Your task to perform on an android device: Show me the alarms in the clock app Image 0: 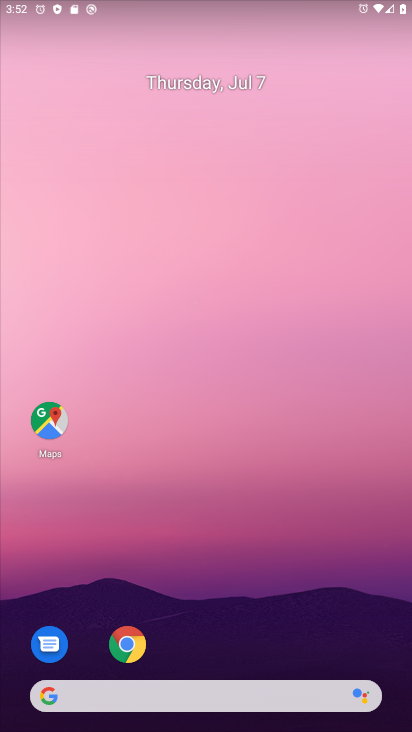
Step 0: press home button
Your task to perform on an android device: Show me the alarms in the clock app Image 1: 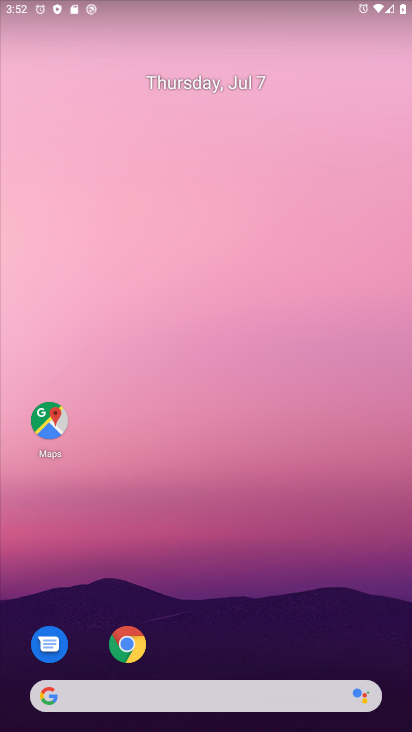
Step 1: drag from (166, 689) to (202, 76)
Your task to perform on an android device: Show me the alarms in the clock app Image 2: 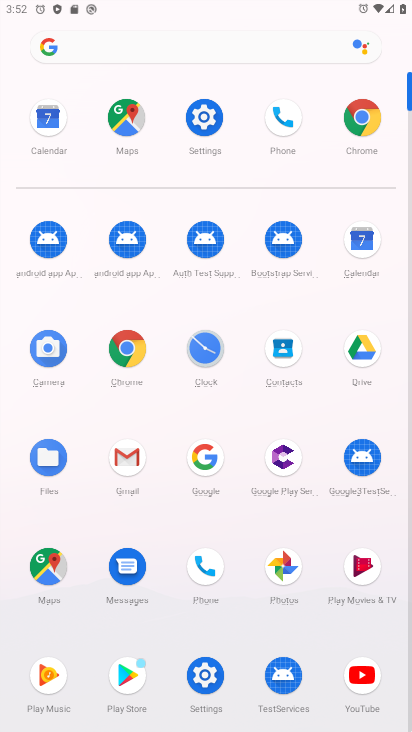
Step 2: click (206, 363)
Your task to perform on an android device: Show me the alarms in the clock app Image 3: 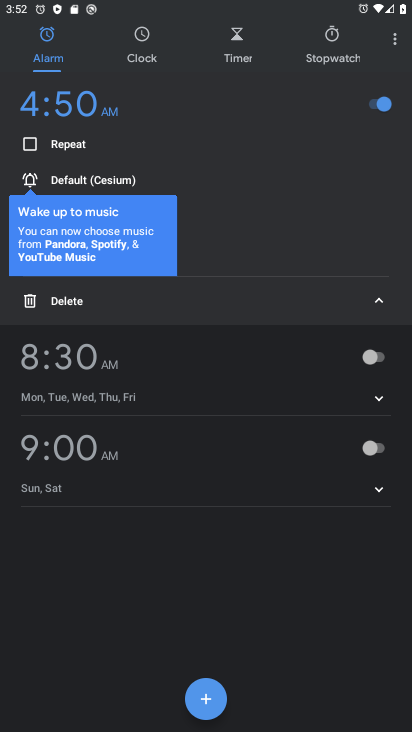
Step 3: task complete